Your task to perform on an android device: change notification settings in the gmail app Image 0: 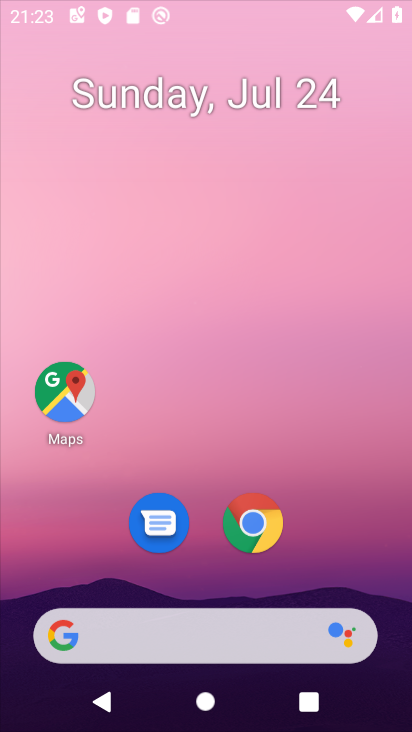
Step 0: press home button
Your task to perform on an android device: change notification settings in the gmail app Image 1: 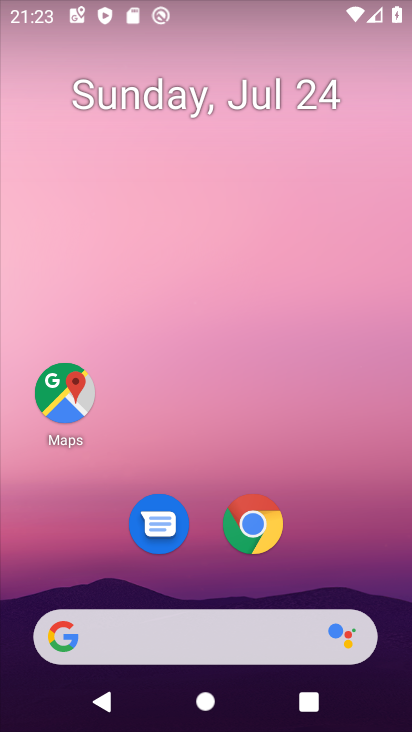
Step 1: drag from (187, 645) to (318, 118)
Your task to perform on an android device: change notification settings in the gmail app Image 2: 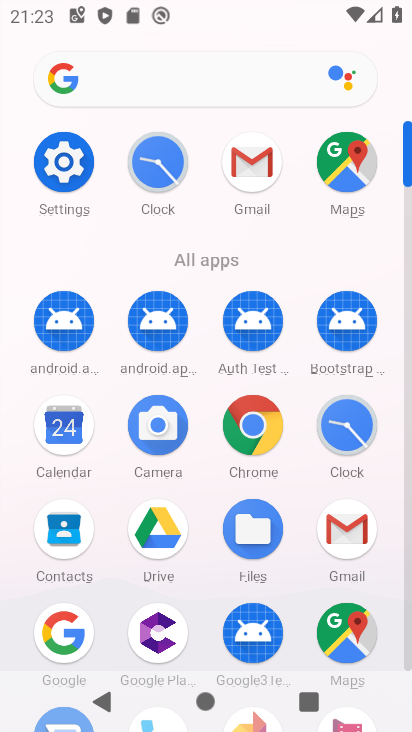
Step 2: click (348, 536)
Your task to perform on an android device: change notification settings in the gmail app Image 3: 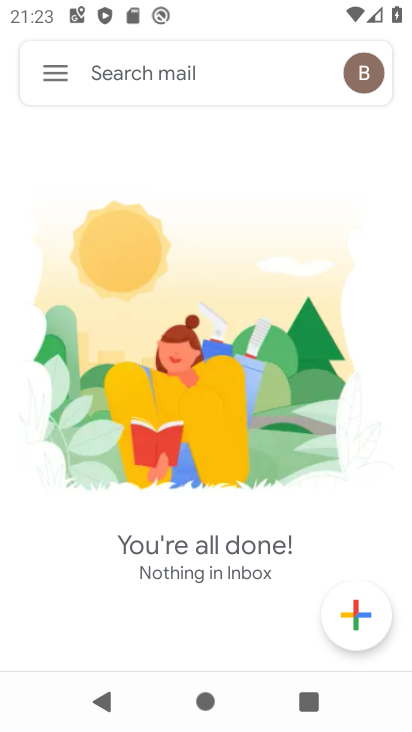
Step 3: click (60, 71)
Your task to perform on an android device: change notification settings in the gmail app Image 4: 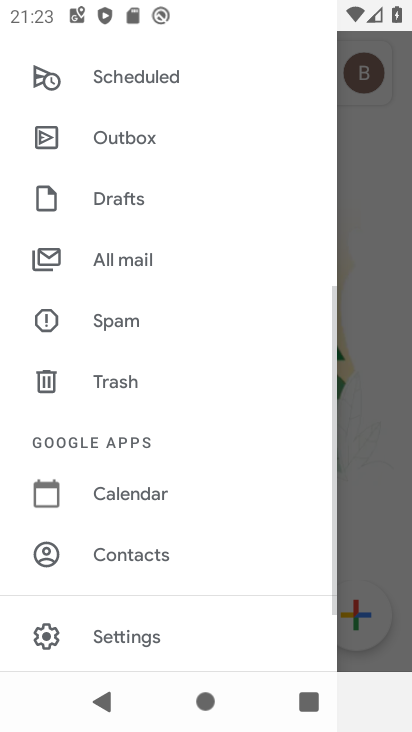
Step 4: click (129, 632)
Your task to perform on an android device: change notification settings in the gmail app Image 5: 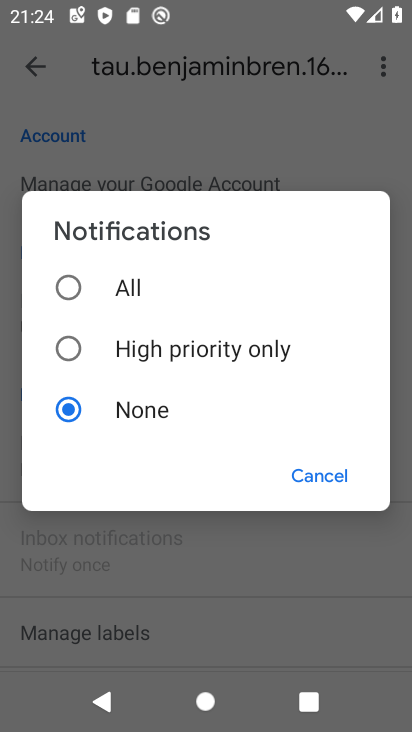
Step 5: click (68, 282)
Your task to perform on an android device: change notification settings in the gmail app Image 6: 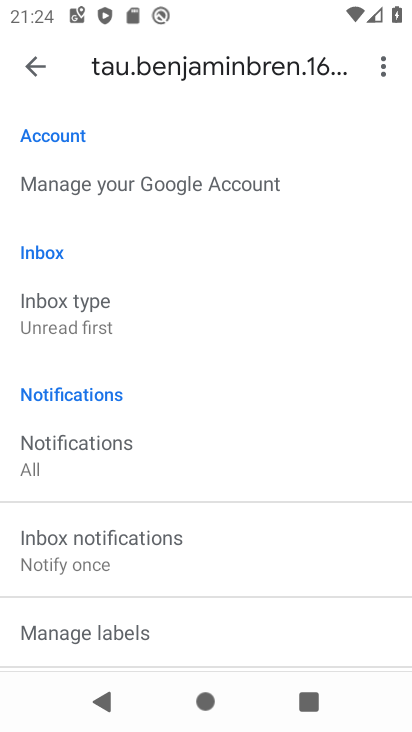
Step 6: click (45, 447)
Your task to perform on an android device: change notification settings in the gmail app Image 7: 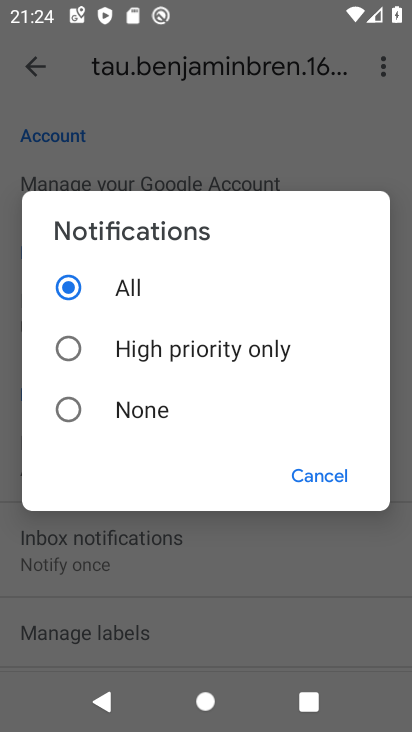
Step 7: click (68, 398)
Your task to perform on an android device: change notification settings in the gmail app Image 8: 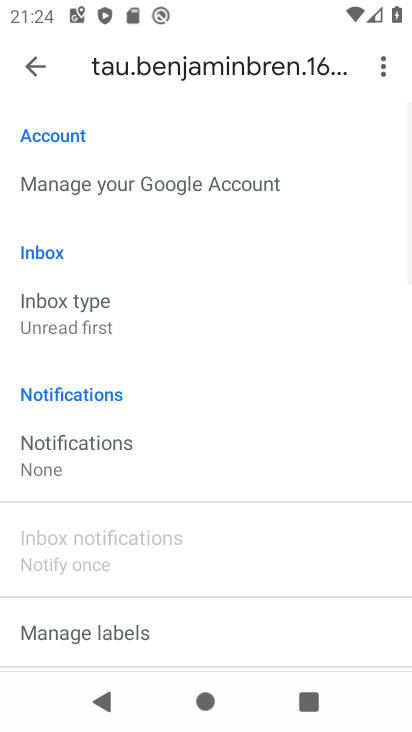
Step 8: task complete